Your task to perform on an android device: turn off notifications settings in the gmail app Image 0: 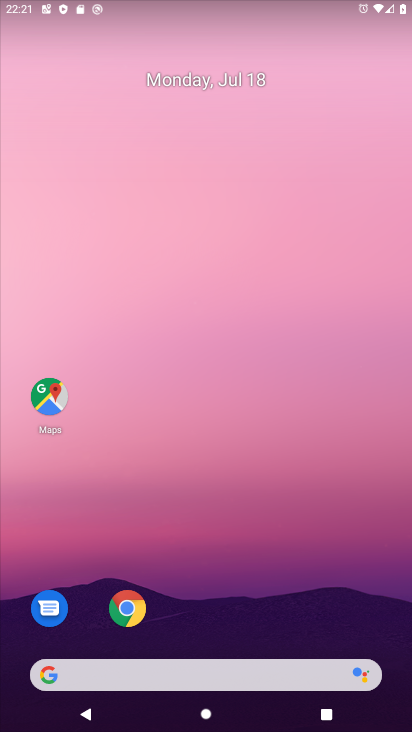
Step 0: drag from (182, 271) to (218, 95)
Your task to perform on an android device: turn off notifications settings in the gmail app Image 1: 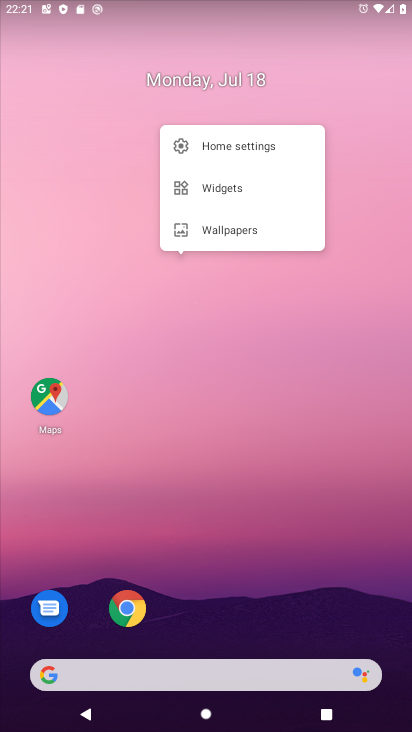
Step 1: drag from (162, 235) to (177, 126)
Your task to perform on an android device: turn off notifications settings in the gmail app Image 2: 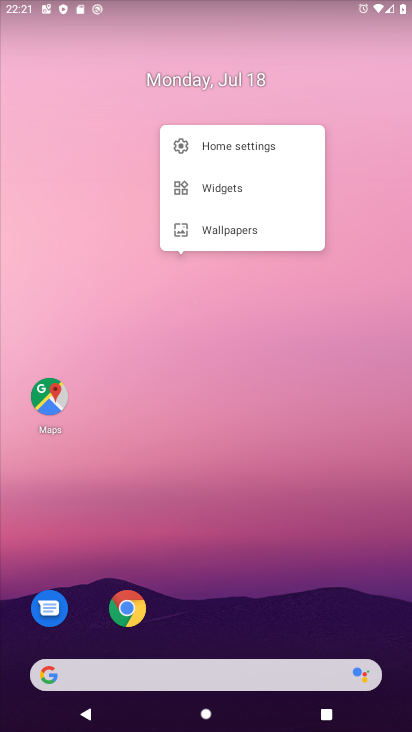
Step 2: drag from (135, 487) to (261, 159)
Your task to perform on an android device: turn off notifications settings in the gmail app Image 3: 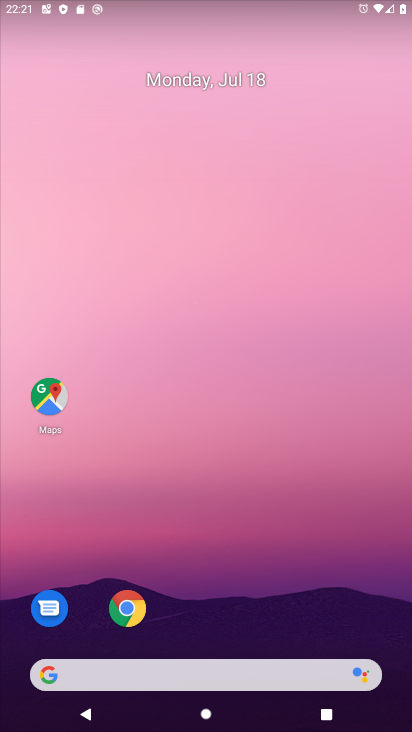
Step 3: drag from (131, 321) to (190, 40)
Your task to perform on an android device: turn off notifications settings in the gmail app Image 4: 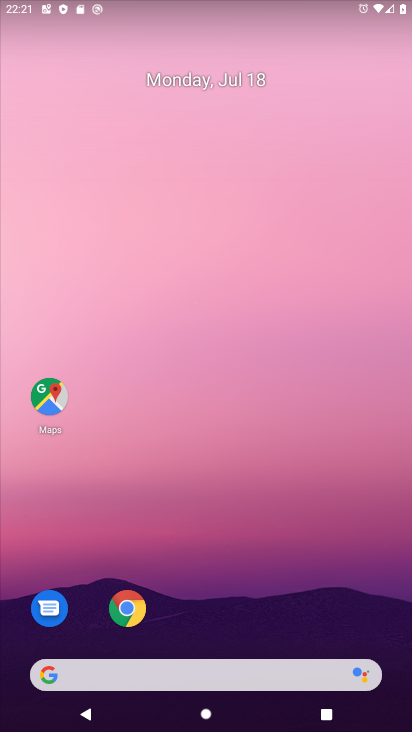
Step 4: drag from (27, 711) to (223, 188)
Your task to perform on an android device: turn off notifications settings in the gmail app Image 5: 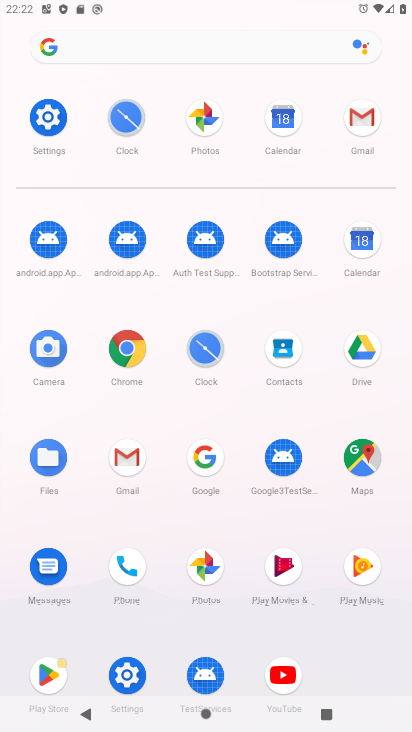
Step 5: click (125, 449)
Your task to perform on an android device: turn off notifications settings in the gmail app Image 6: 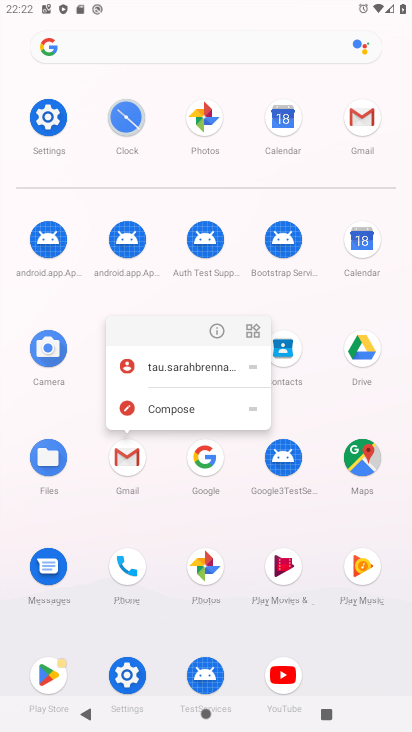
Step 6: click (132, 465)
Your task to perform on an android device: turn off notifications settings in the gmail app Image 7: 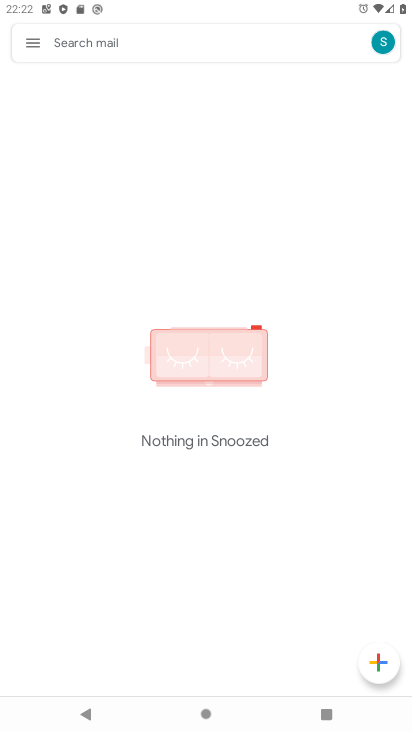
Step 7: click (30, 42)
Your task to perform on an android device: turn off notifications settings in the gmail app Image 8: 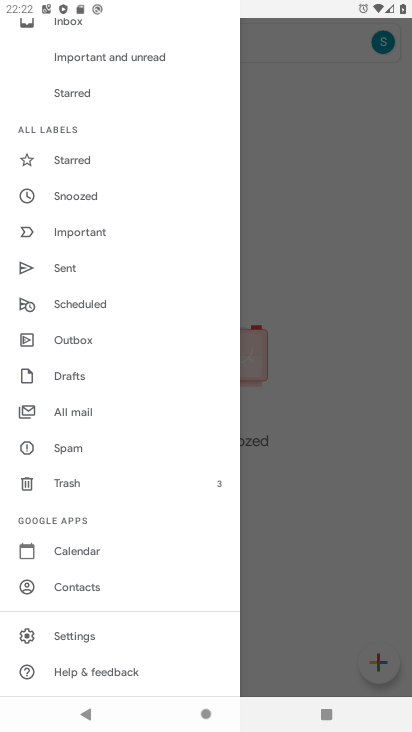
Step 8: click (83, 621)
Your task to perform on an android device: turn off notifications settings in the gmail app Image 9: 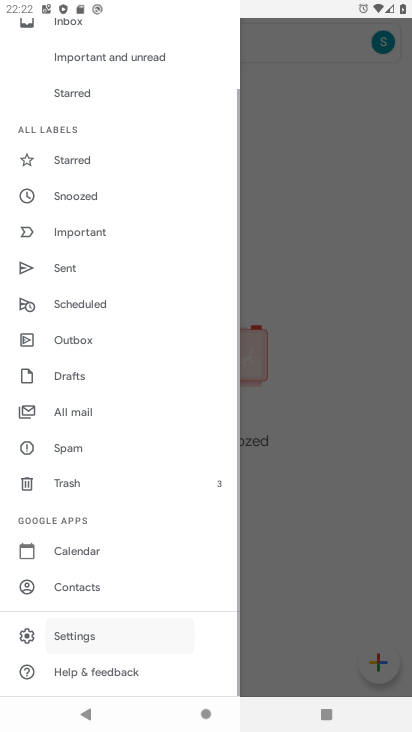
Step 9: click (76, 632)
Your task to perform on an android device: turn off notifications settings in the gmail app Image 10: 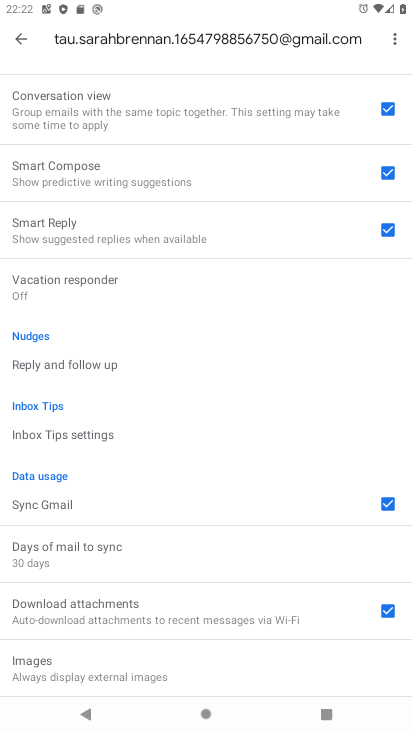
Step 10: click (25, 36)
Your task to perform on an android device: turn off notifications settings in the gmail app Image 11: 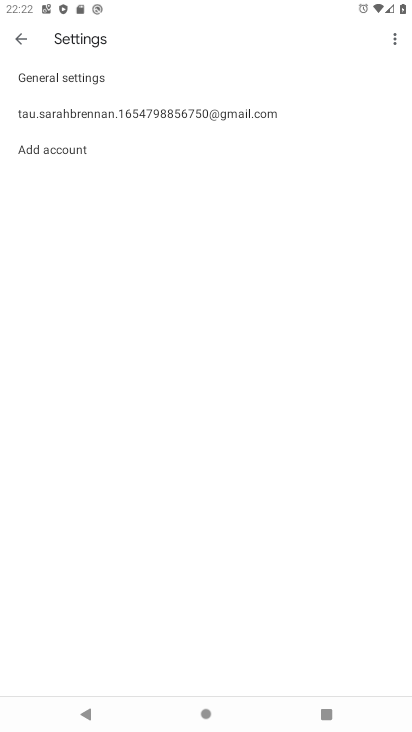
Step 11: click (74, 76)
Your task to perform on an android device: turn off notifications settings in the gmail app Image 12: 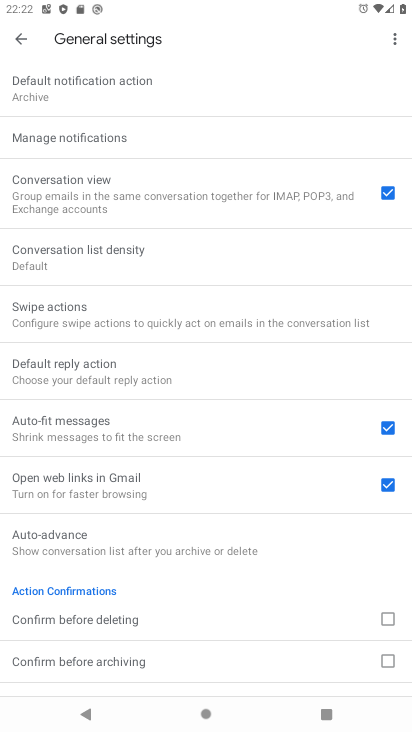
Step 12: click (75, 145)
Your task to perform on an android device: turn off notifications settings in the gmail app Image 13: 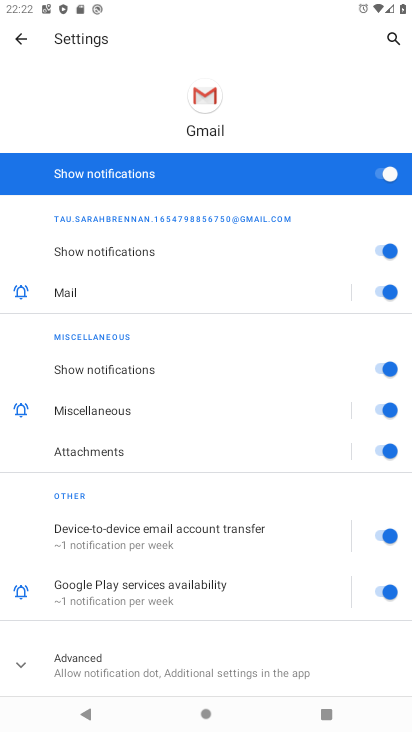
Step 13: click (398, 167)
Your task to perform on an android device: turn off notifications settings in the gmail app Image 14: 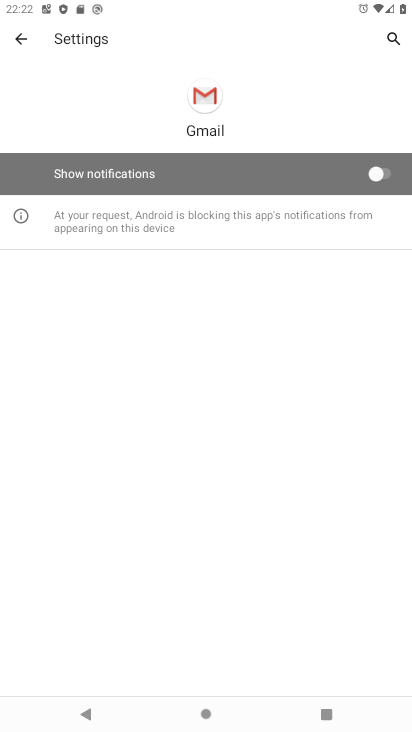
Step 14: task complete